Your task to perform on an android device: Show me the alarms in the clock app Image 0: 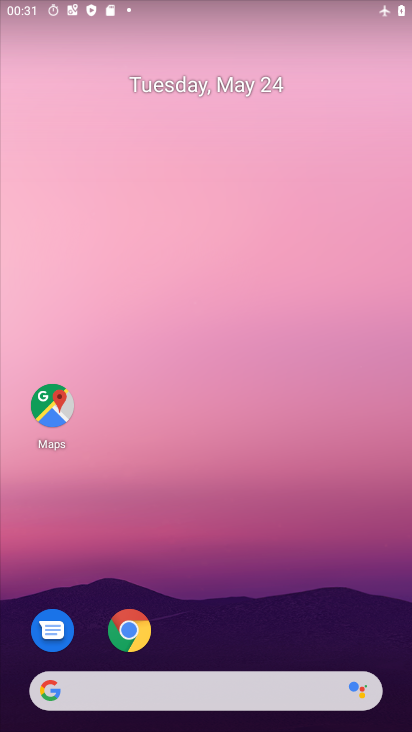
Step 0: drag from (228, 645) to (262, 35)
Your task to perform on an android device: Show me the alarms in the clock app Image 1: 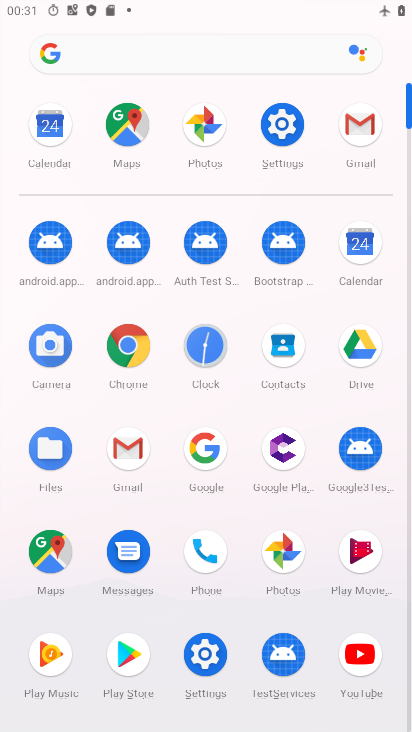
Step 1: click (205, 351)
Your task to perform on an android device: Show me the alarms in the clock app Image 2: 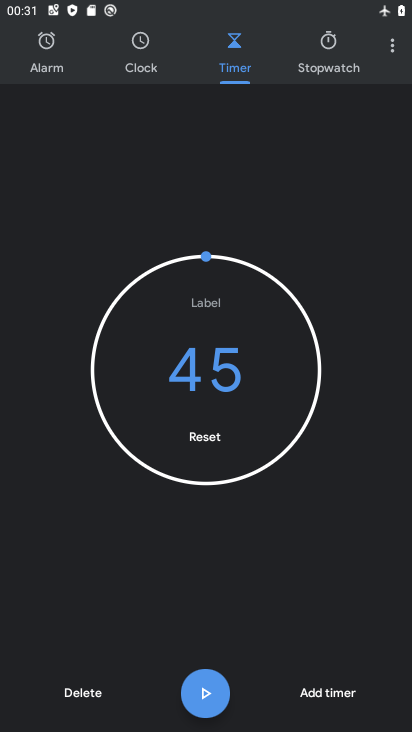
Step 2: click (53, 62)
Your task to perform on an android device: Show me the alarms in the clock app Image 3: 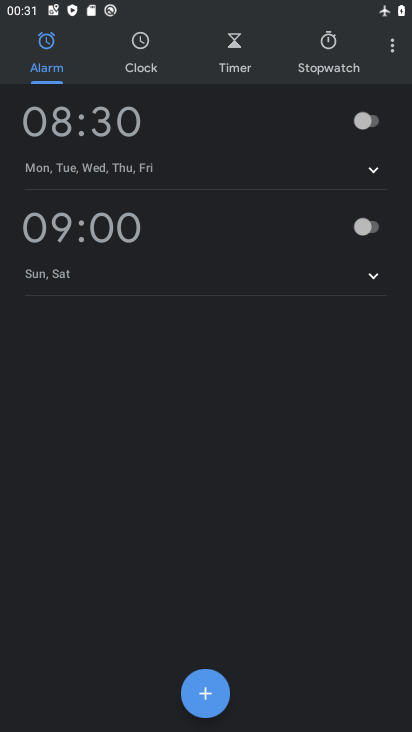
Step 3: task complete